Your task to perform on an android device: toggle notification dots Image 0: 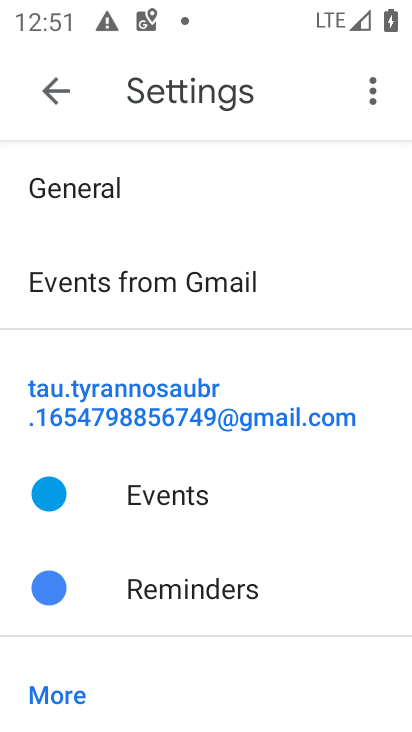
Step 0: press home button
Your task to perform on an android device: toggle notification dots Image 1: 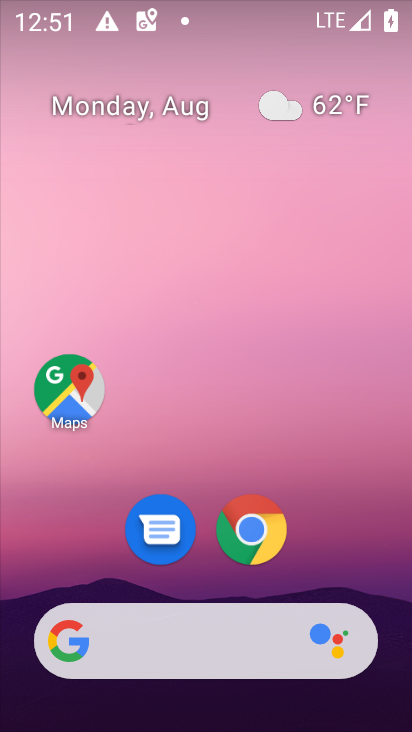
Step 1: drag from (177, 611) to (196, 362)
Your task to perform on an android device: toggle notification dots Image 2: 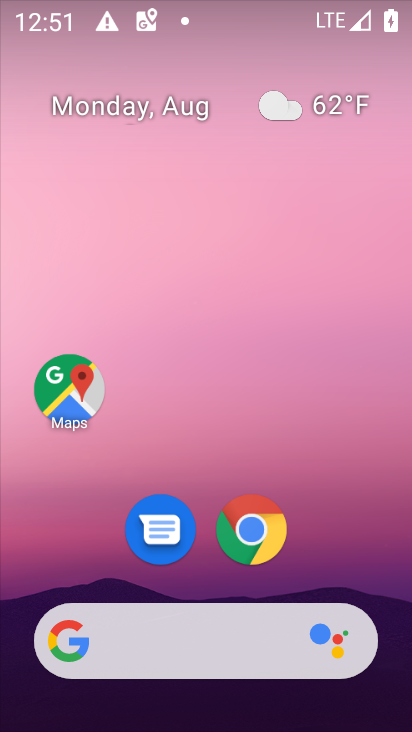
Step 2: drag from (192, 565) to (192, 140)
Your task to perform on an android device: toggle notification dots Image 3: 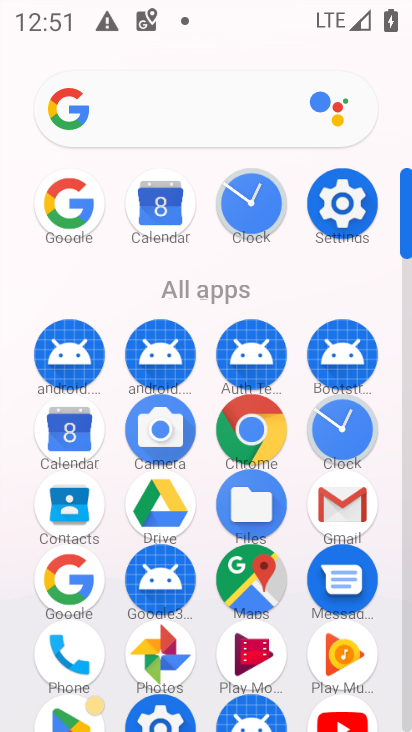
Step 3: click (334, 212)
Your task to perform on an android device: toggle notification dots Image 4: 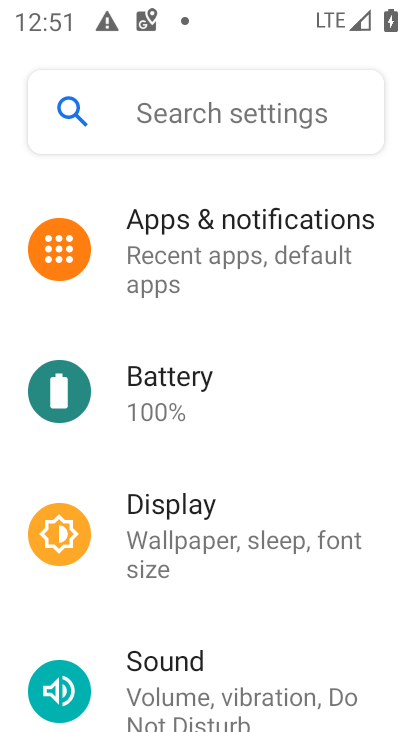
Step 4: drag from (207, 241) to (189, 553)
Your task to perform on an android device: toggle notification dots Image 5: 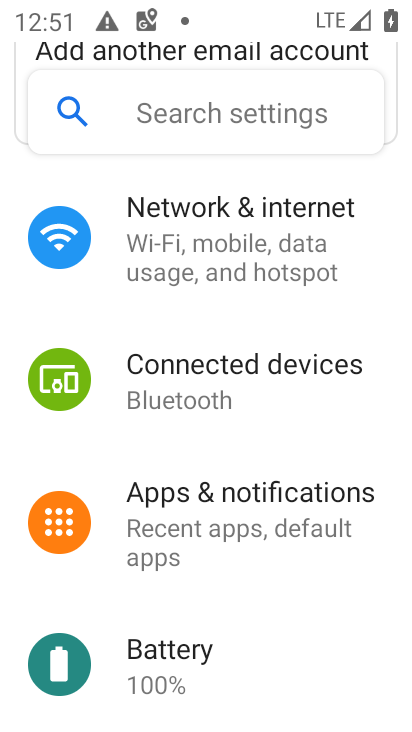
Step 5: drag from (202, 230) to (197, 519)
Your task to perform on an android device: toggle notification dots Image 6: 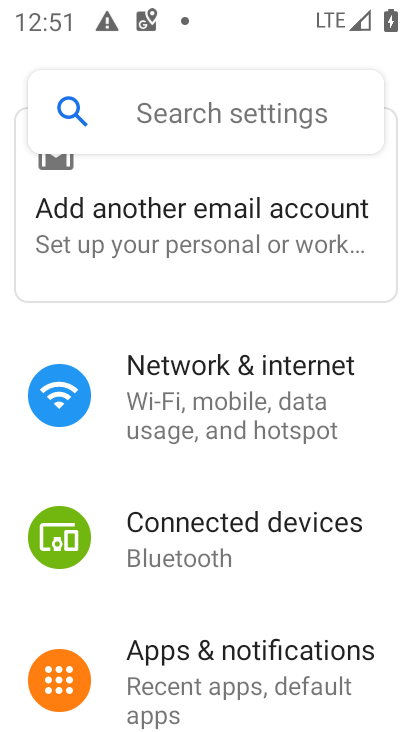
Step 6: drag from (175, 301) to (175, 674)
Your task to perform on an android device: toggle notification dots Image 7: 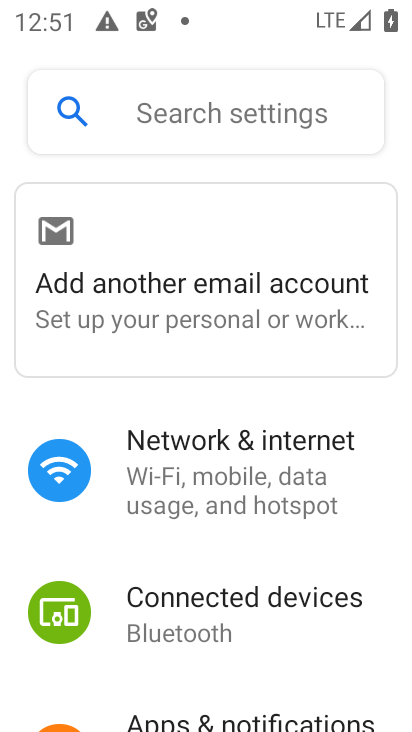
Step 7: drag from (205, 387) to (207, 676)
Your task to perform on an android device: toggle notification dots Image 8: 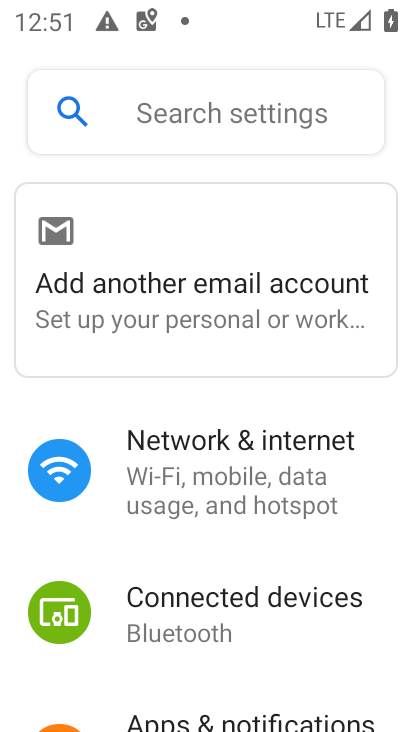
Step 8: click (205, 721)
Your task to perform on an android device: toggle notification dots Image 9: 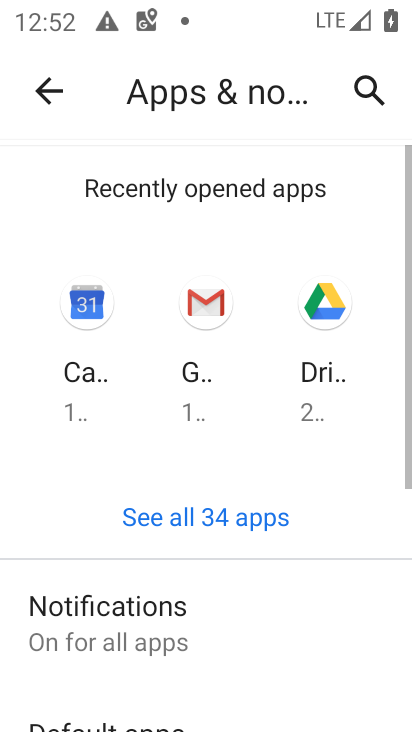
Step 9: click (132, 629)
Your task to perform on an android device: toggle notification dots Image 10: 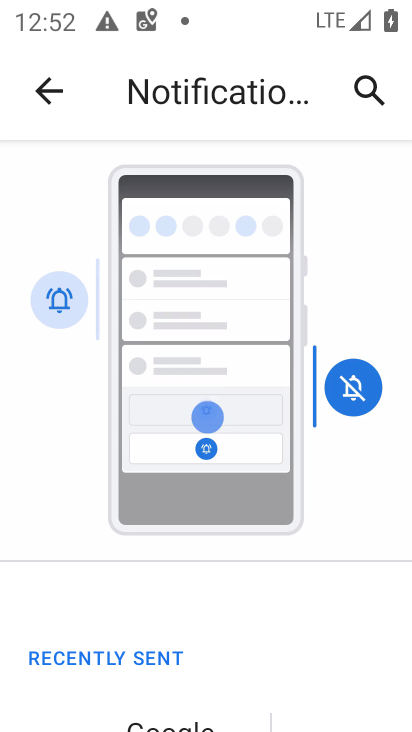
Step 10: drag from (208, 706) to (209, 319)
Your task to perform on an android device: toggle notification dots Image 11: 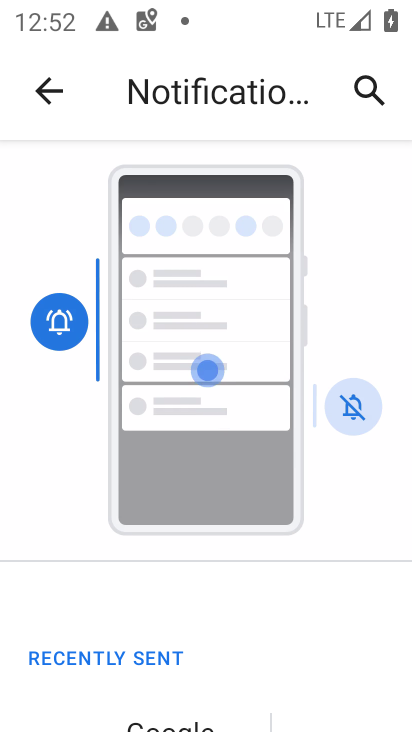
Step 11: drag from (198, 703) to (182, 361)
Your task to perform on an android device: toggle notification dots Image 12: 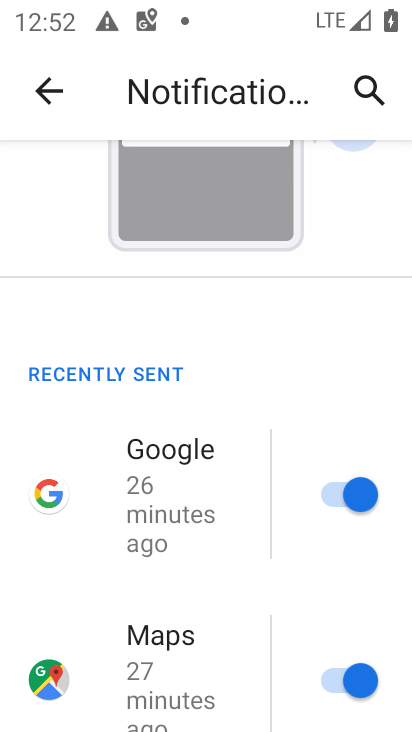
Step 12: drag from (235, 699) to (235, 325)
Your task to perform on an android device: toggle notification dots Image 13: 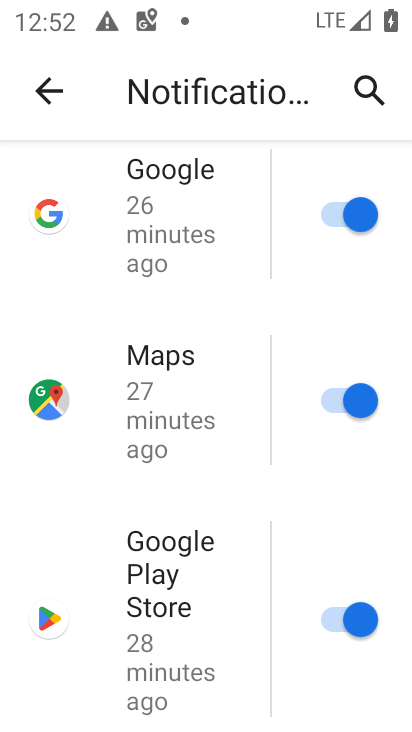
Step 13: drag from (222, 631) to (242, 299)
Your task to perform on an android device: toggle notification dots Image 14: 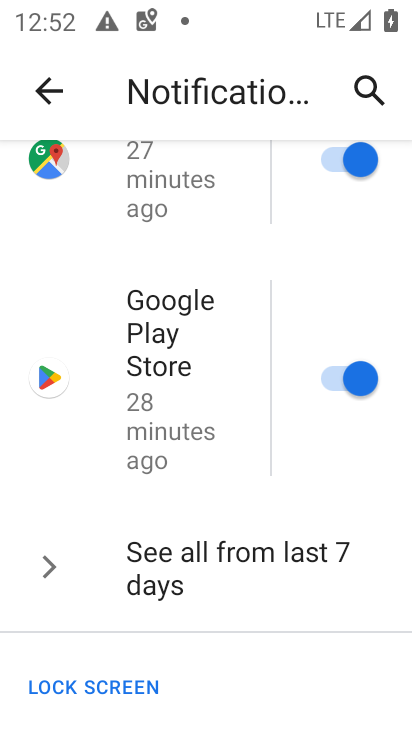
Step 14: drag from (187, 653) to (187, 305)
Your task to perform on an android device: toggle notification dots Image 15: 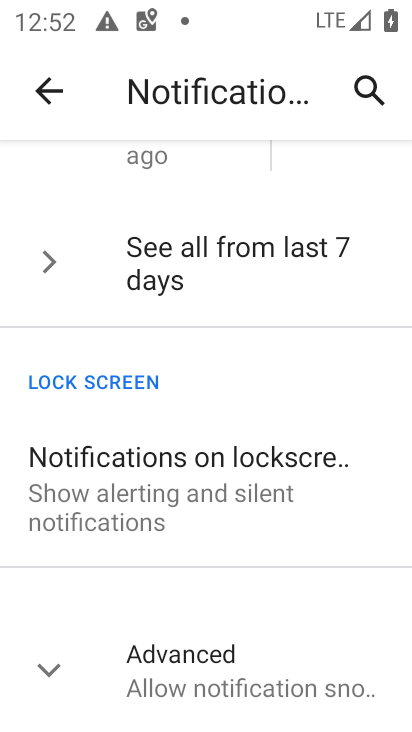
Step 15: click (193, 672)
Your task to perform on an android device: toggle notification dots Image 16: 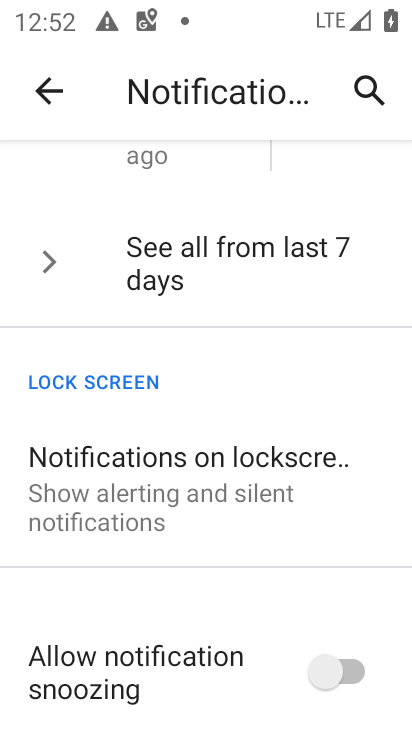
Step 16: drag from (188, 704) to (188, 332)
Your task to perform on an android device: toggle notification dots Image 17: 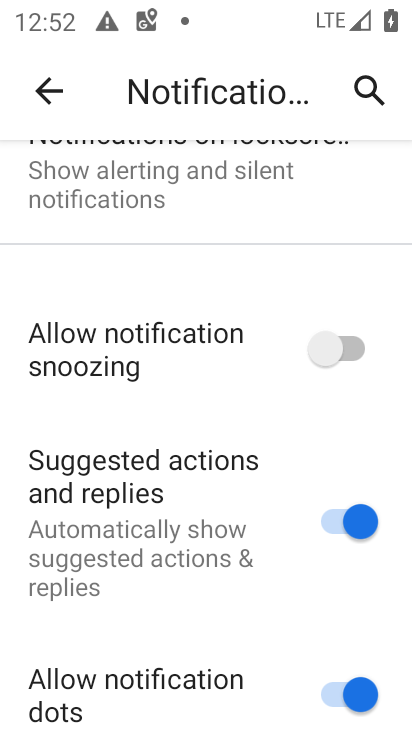
Step 17: drag from (208, 606) to (216, 327)
Your task to perform on an android device: toggle notification dots Image 18: 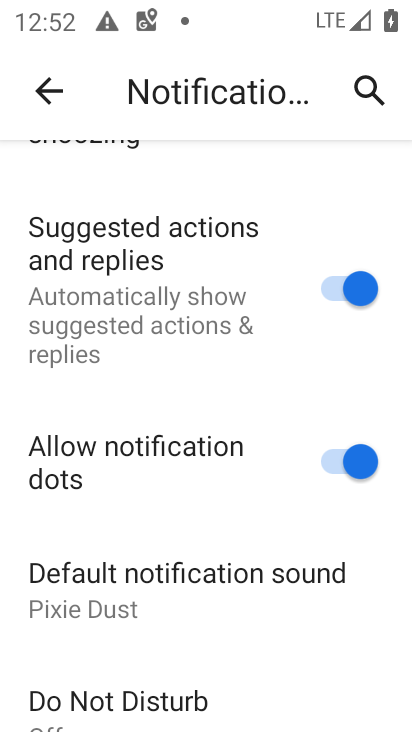
Step 18: click (328, 468)
Your task to perform on an android device: toggle notification dots Image 19: 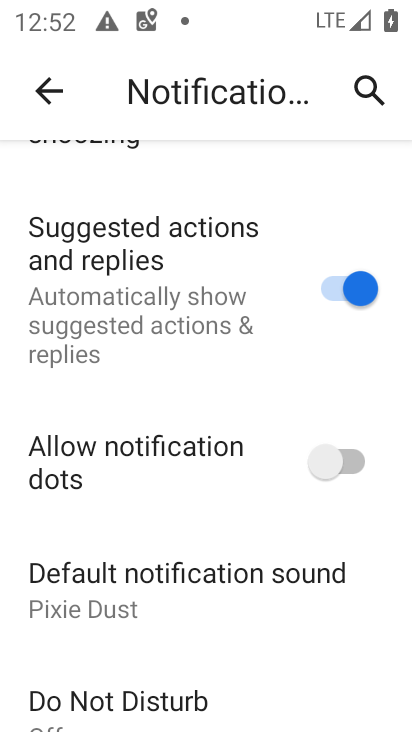
Step 19: task complete